Your task to perform on an android device: View the shopping cart on ebay. Image 0: 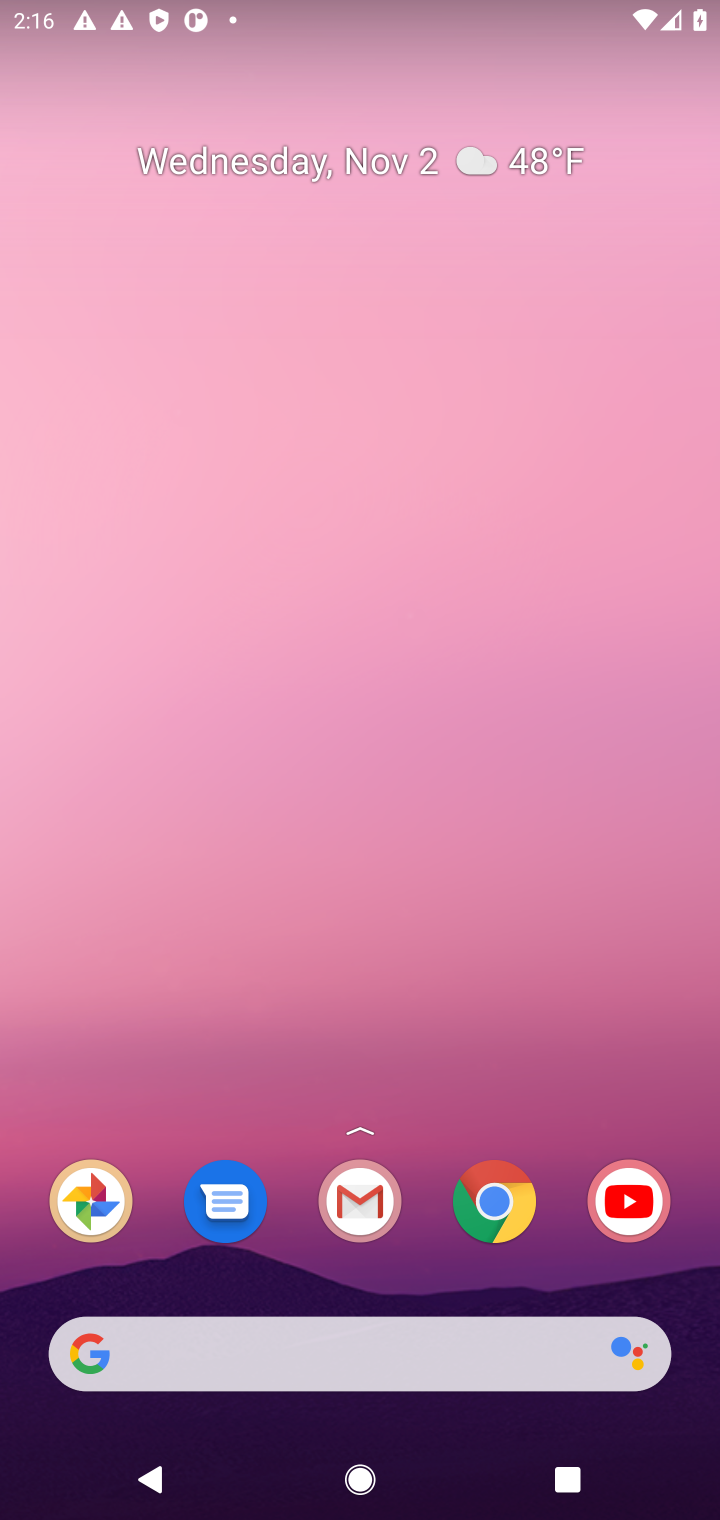
Step 0: click (502, 1187)
Your task to perform on an android device: View the shopping cart on ebay. Image 1: 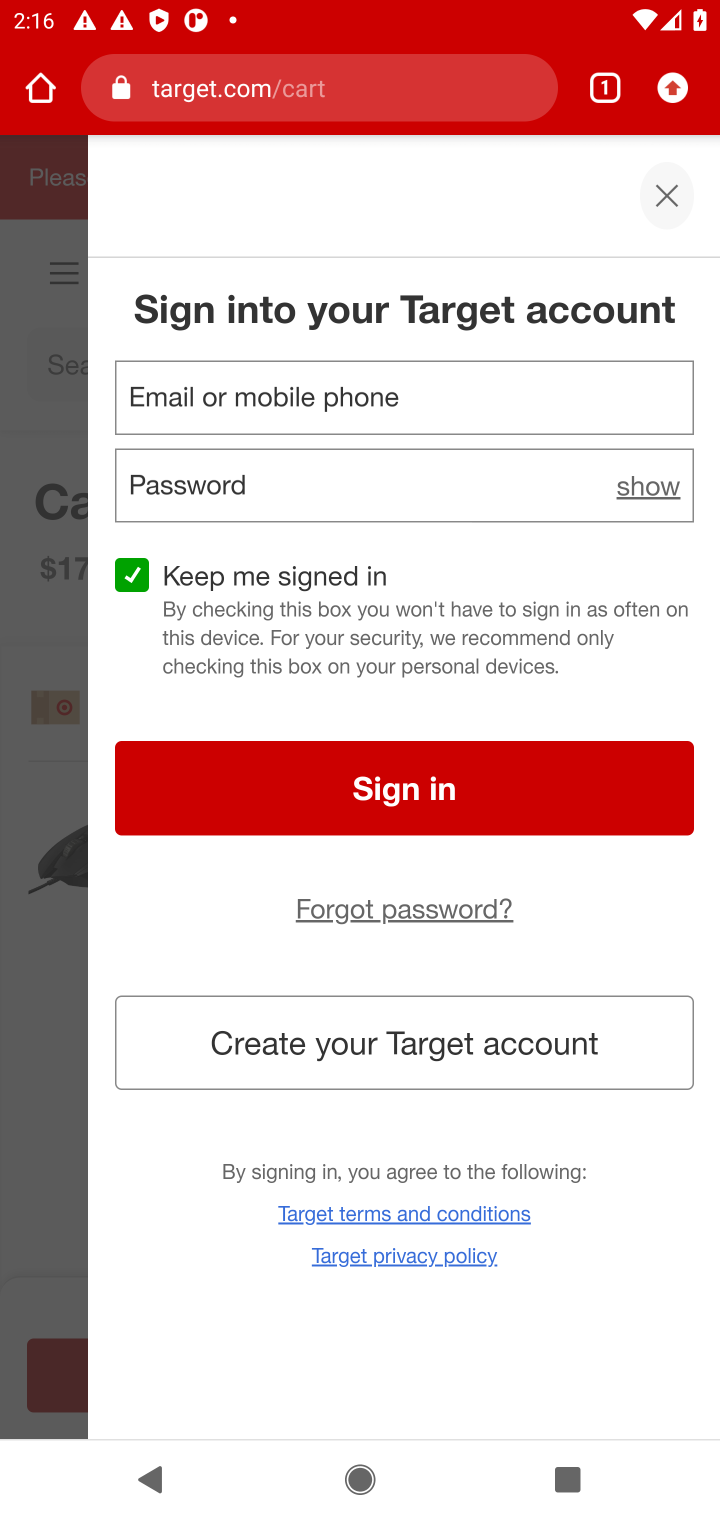
Step 1: click (430, 99)
Your task to perform on an android device: View the shopping cart on ebay. Image 2: 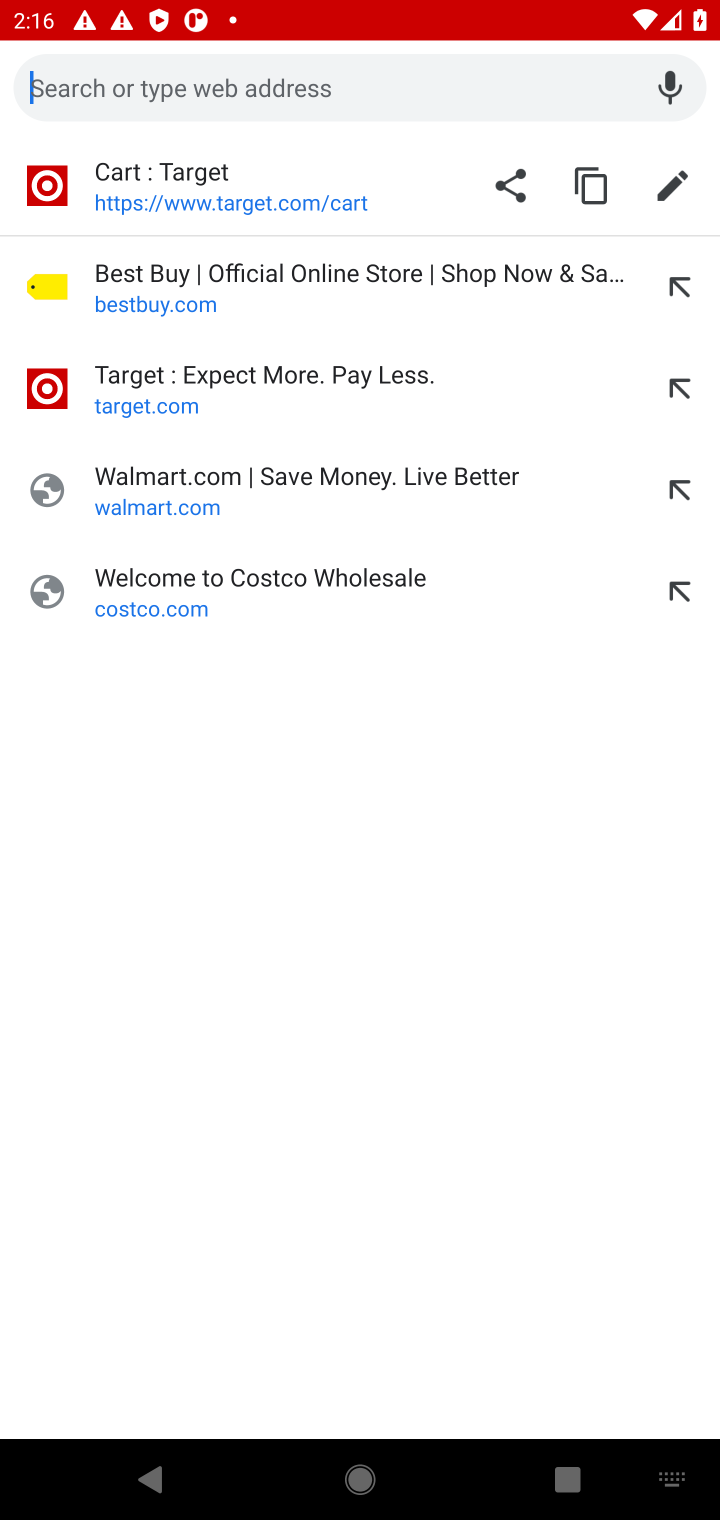
Step 2: type "ebay"
Your task to perform on an android device: View the shopping cart on ebay. Image 3: 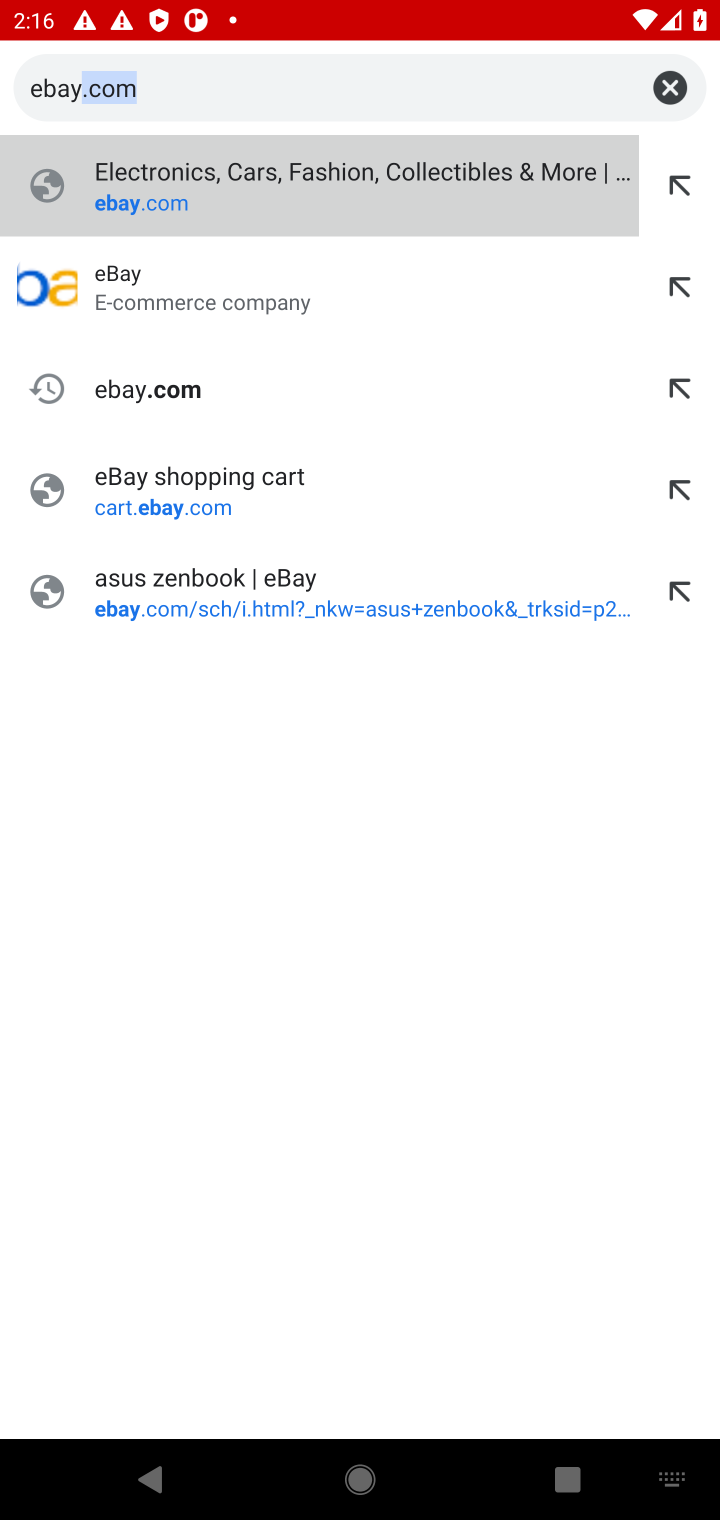
Step 3: click (156, 387)
Your task to perform on an android device: View the shopping cart on ebay. Image 4: 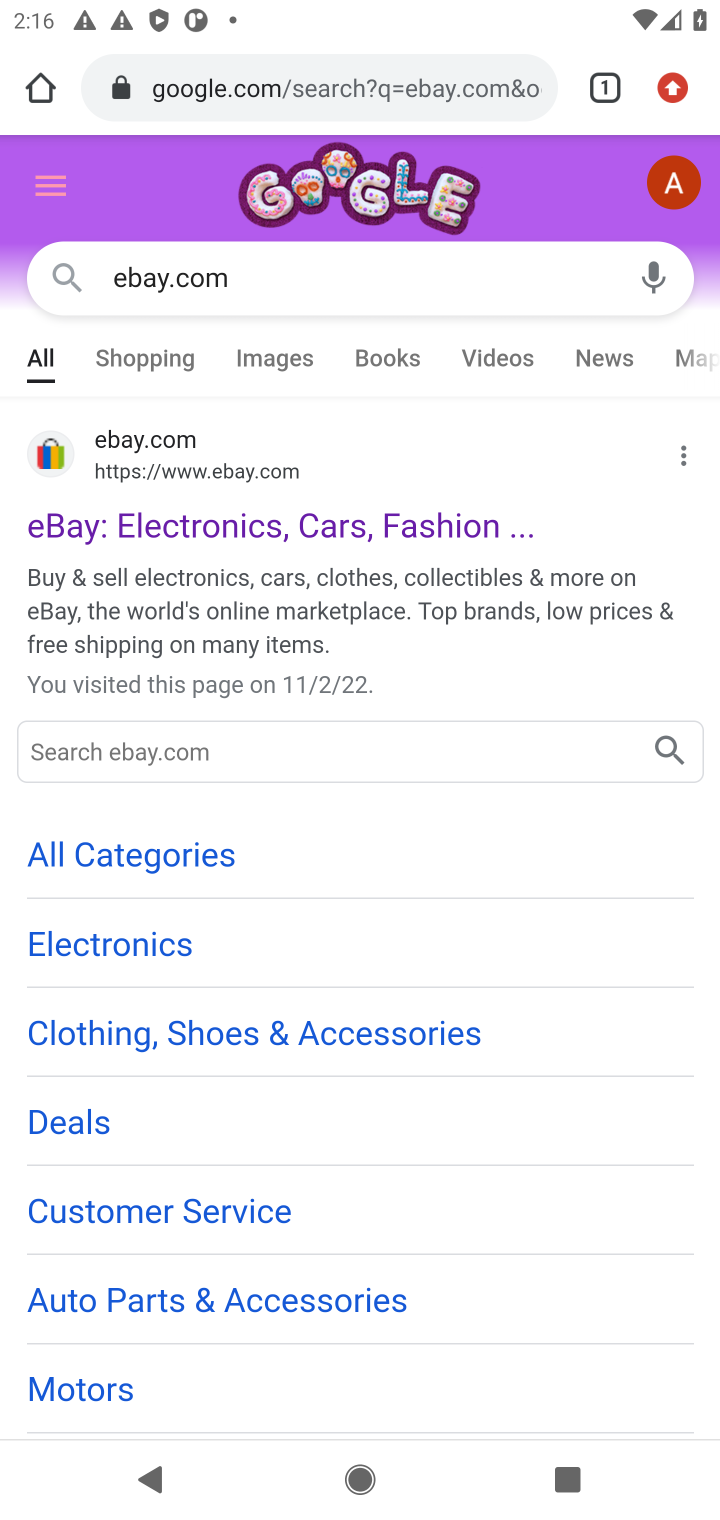
Step 4: click (180, 454)
Your task to perform on an android device: View the shopping cart on ebay. Image 5: 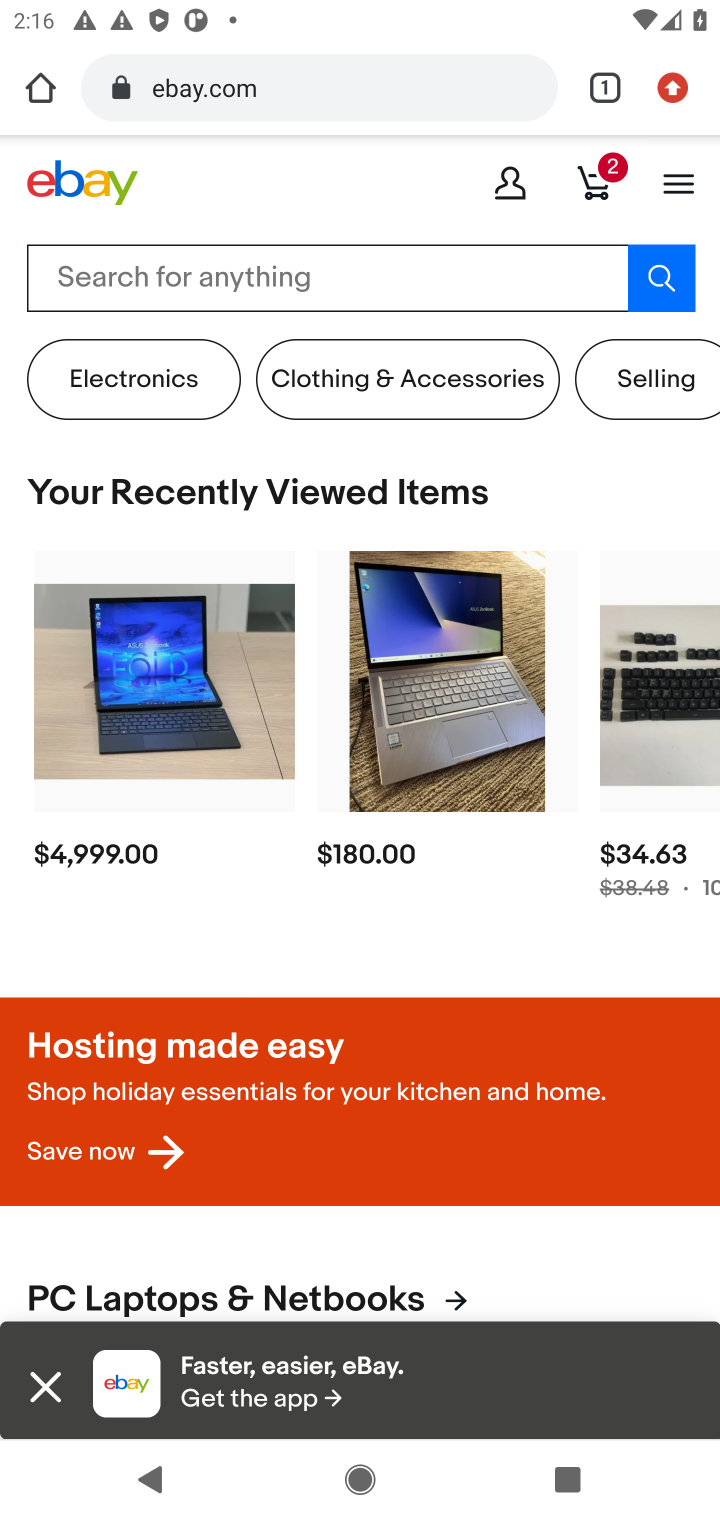
Step 5: click (600, 189)
Your task to perform on an android device: View the shopping cart on ebay. Image 6: 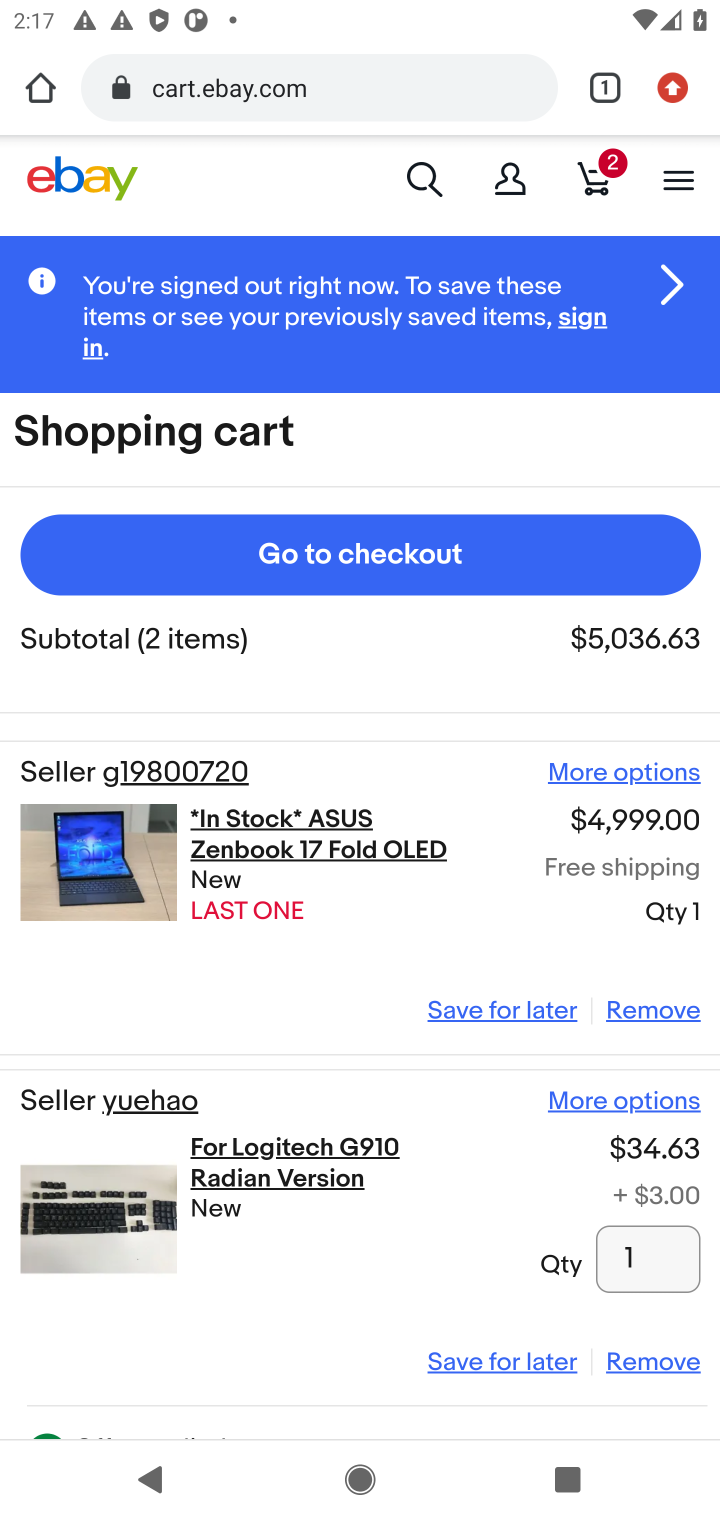
Step 6: task complete